Your task to perform on an android device: Find coffee shops on Maps Image 0: 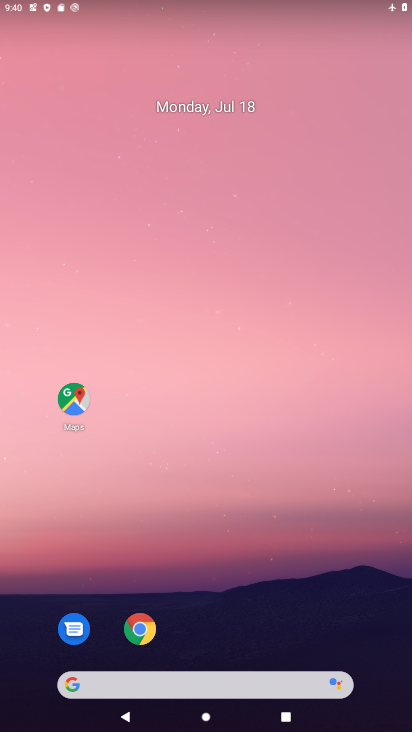
Step 0: click (199, 94)
Your task to perform on an android device: Find coffee shops on Maps Image 1: 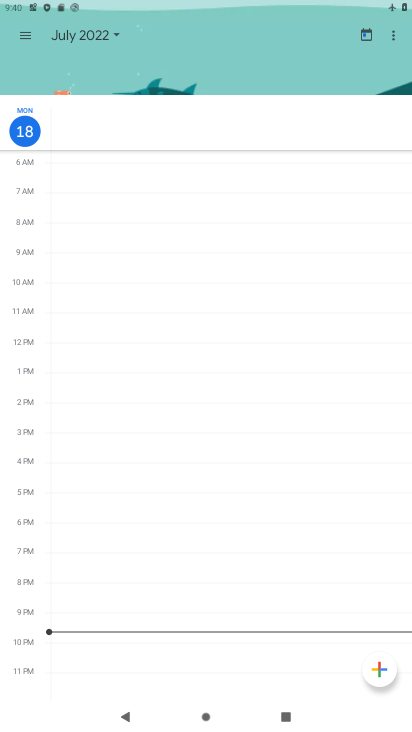
Step 1: press home button
Your task to perform on an android device: Find coffee shops on Maps Image 2: 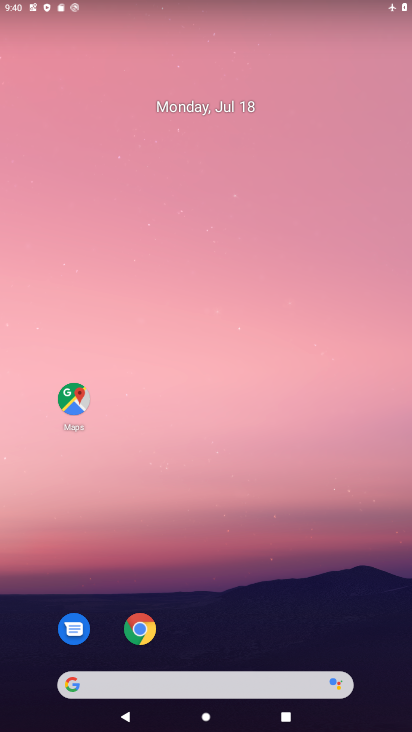
Step 2: drag from (304, 630) to (166, 177)
Your task to perform on an android device: Find coffee shops on Maps Image 3: 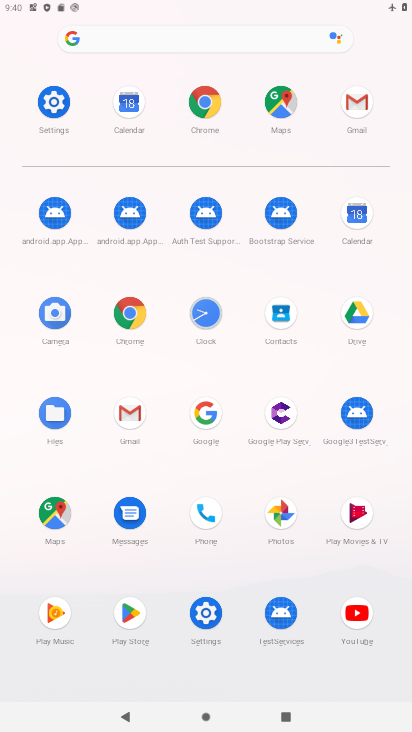
Step 3: click (289, 118)
Your task to perform on an android device: Find coffee shops on Maps Image 4: 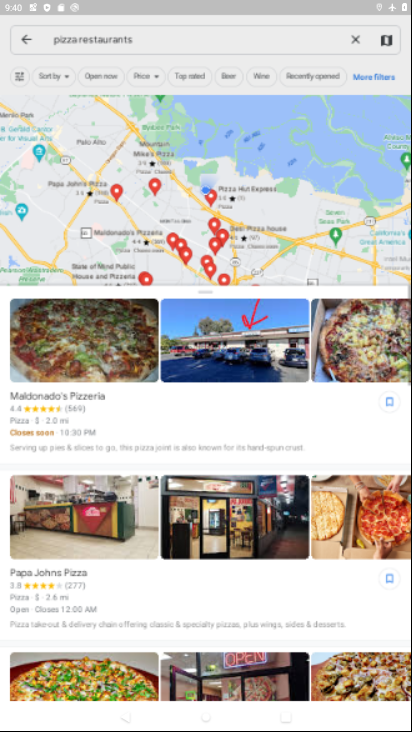
Step 4: click (174, 47)
Your task to perform on an android device: Find coffee shops on Maps Image 5: 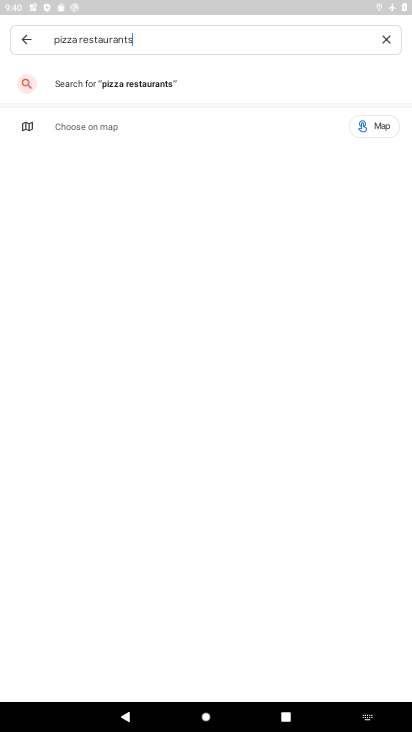
Step 5: click (386, 35)
Your task to perform on an android device: Find coffee shops on Maps Image 6: 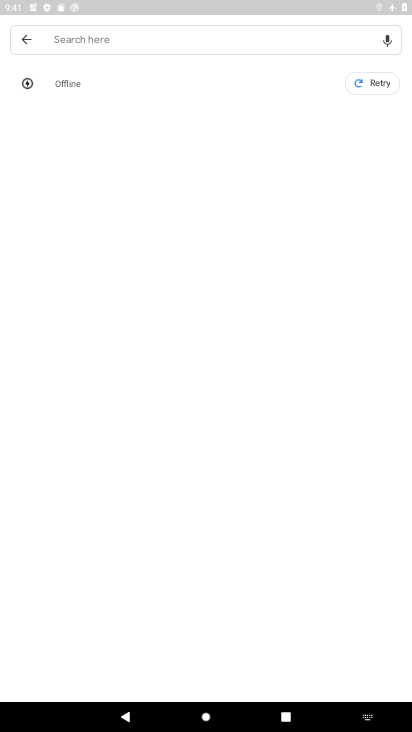
Step 6: type "coffee shops"
Your task to perform on an android device: Find coffee shops on Maps Image 7: 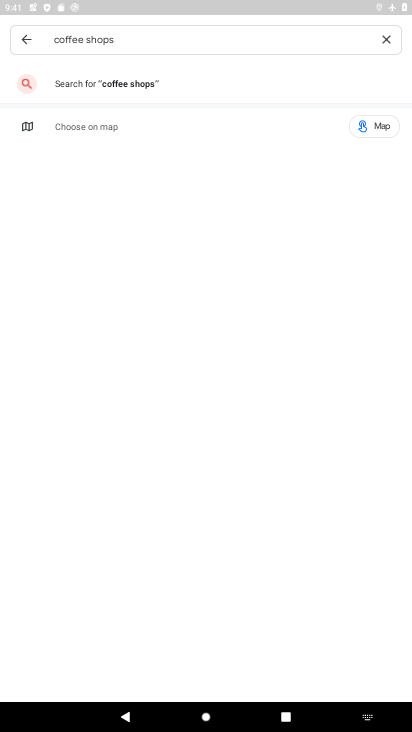
Step 7: press enter
Your task to perform on an android device: Find coffee shops on Maps Image 8: 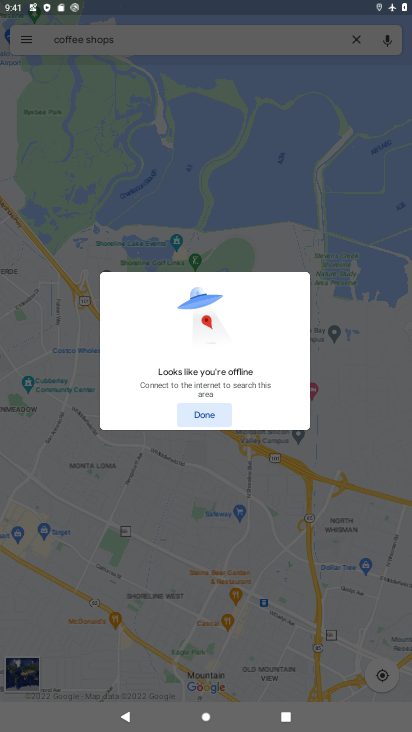
Step 8: task complete